Your task to perform on an android device: Open maps Image 0: 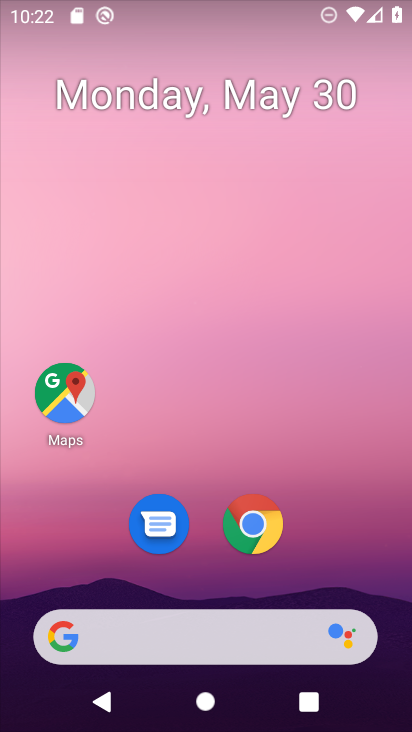
Step 0: click (71, 392)
Your task to perform on an android device: Open maps Image 1: 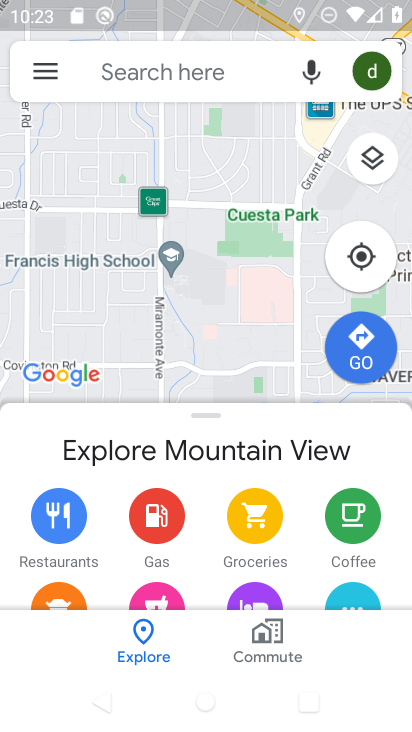
Step 1: task complete